Your task to perform on an android device: open app "Move to iOS" (install if not already installed) and enter user name: "Decca@icloud.com" and password: "reabbreviate" Image 0: 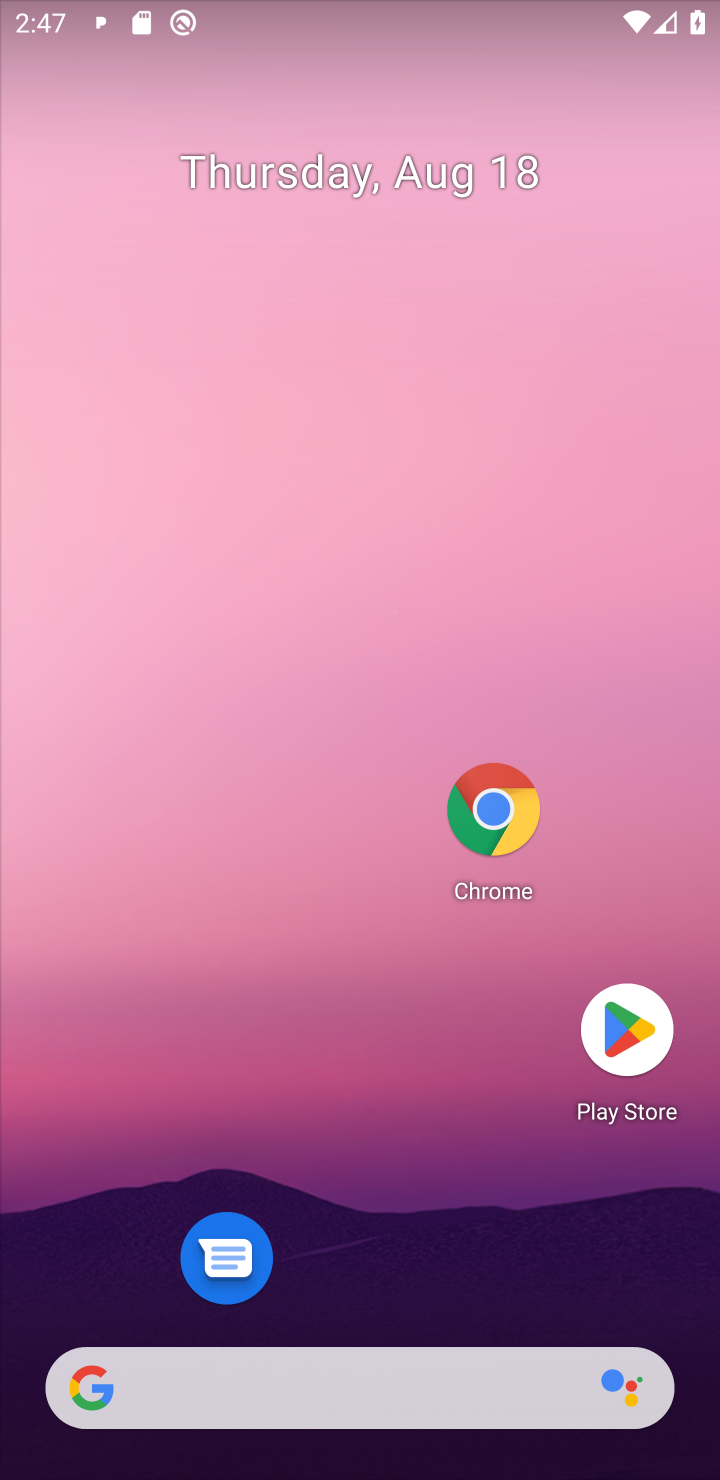
Step 0: drag from (155, 1244) to (185, 581)
Your task to perform on an android device: open app "Move to iOS" (install if not already installed) and enter user name: "Decca@icloud.com" and password: "reabbreviate" Image 1: 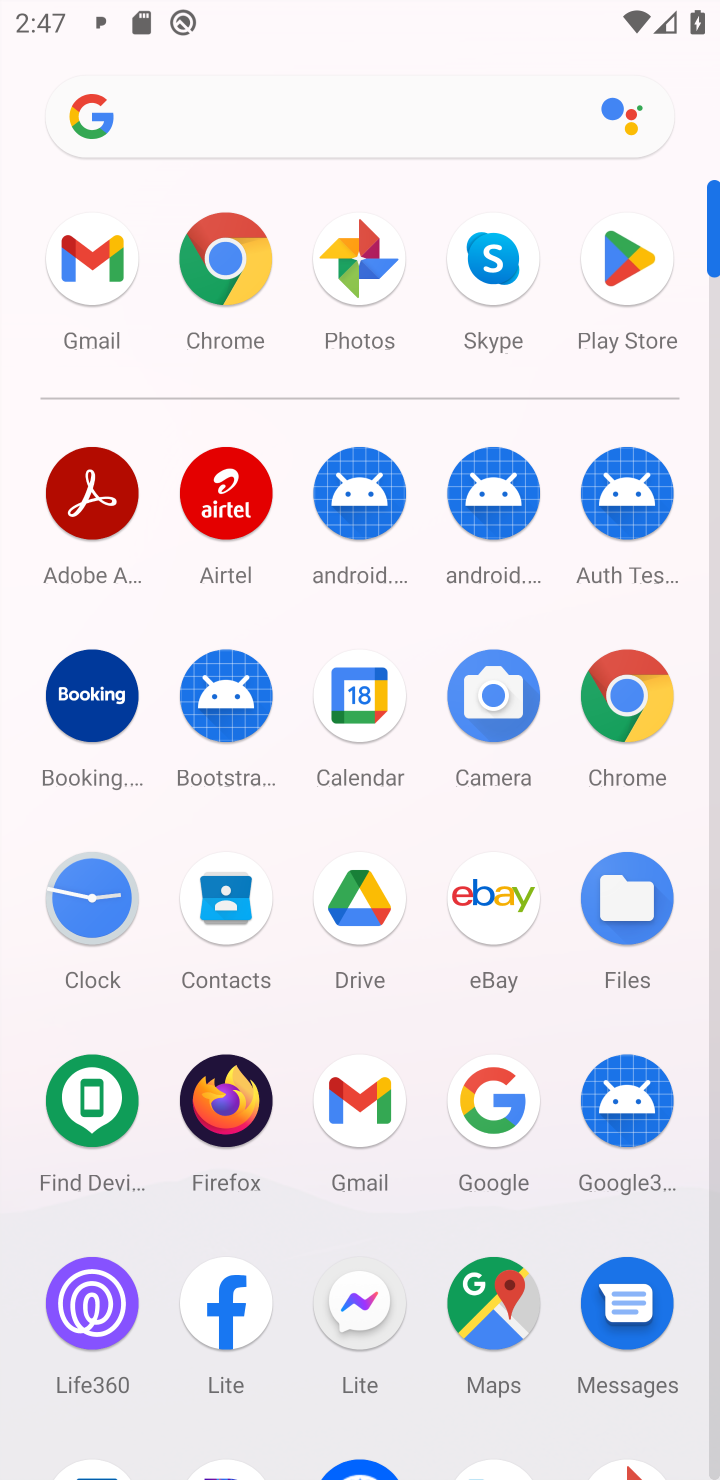
Step 1: click (616, 259)
Your task to perform on an android device: open app "Move to iOS" (install if not already installed) and enter user name: "Decca@icloud.com" and password: "reabbreviate" Image 2: 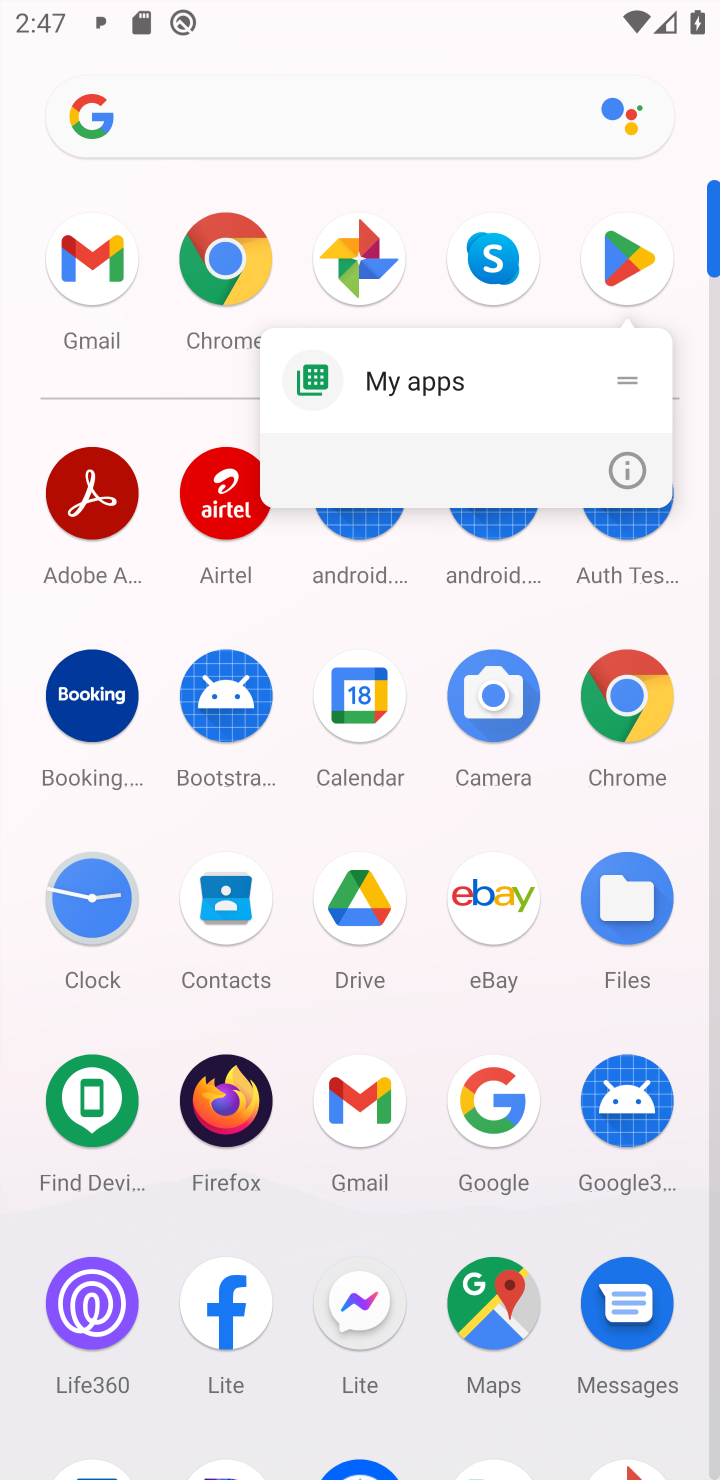
Step 2: click (616, 259)
Your task to perform on an android device: open app "Move to iOS" (install if not already installed) and enter user name: "Decca@icloud.com" and password: "reabbreviate" Image 3: 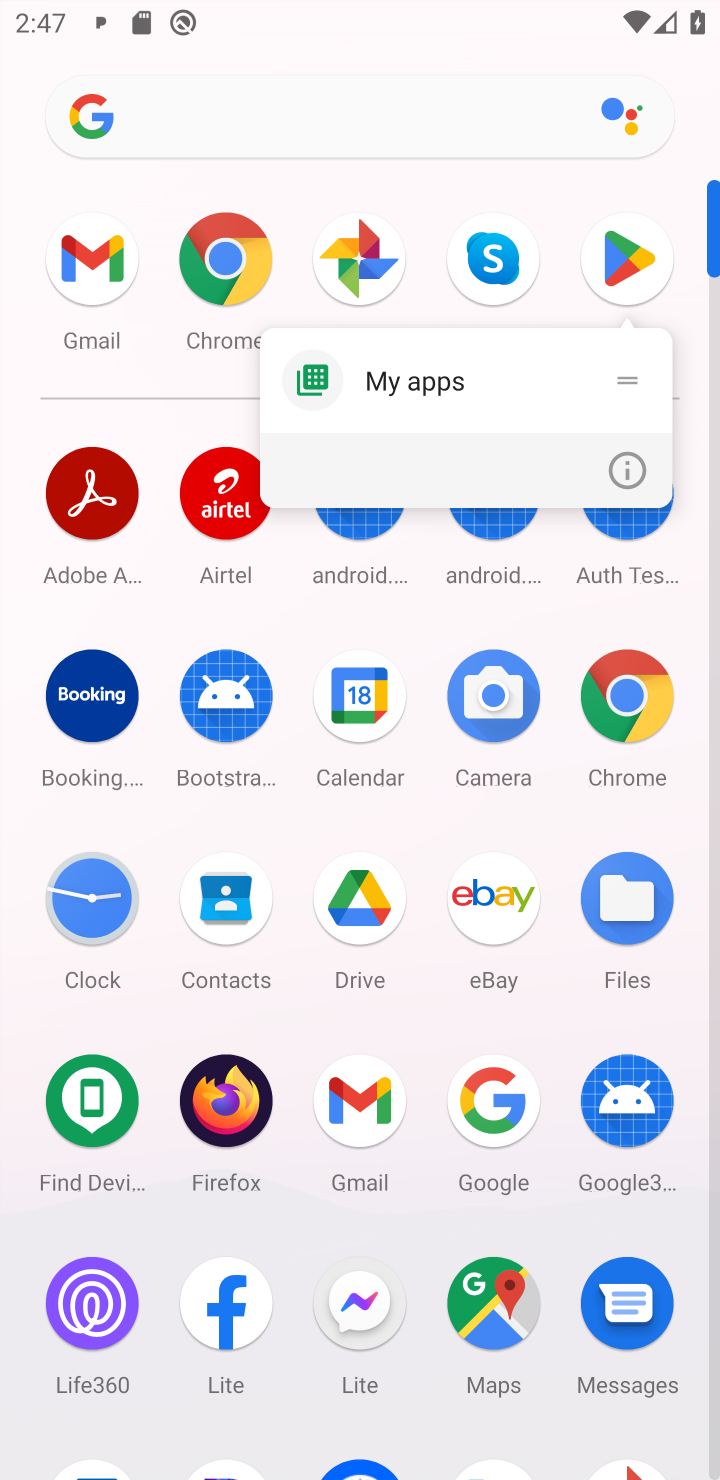
Step 3: click (616, 259)
Your task to perform on an android device: open app "Move to iOS" (install if not already installed) and enter user name: "Decca@icloud.com" and password: "reabbreviate" Image 4: 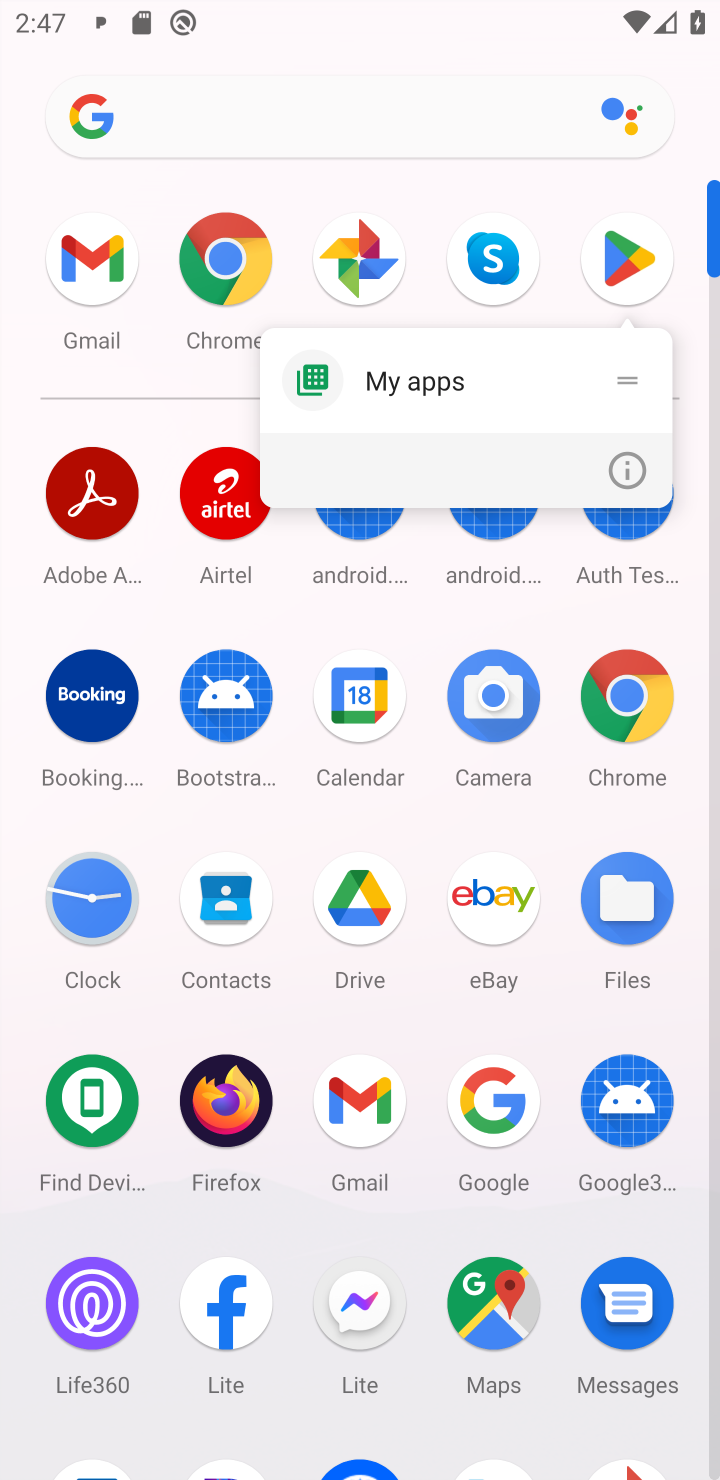
Step 4: click (616, 259)
Your task to perform on an android device: open app "Move to iOS" (install if not already installed) and enter user name: "Decca@icloud.com" and password: "reabbreviate" Image 5: 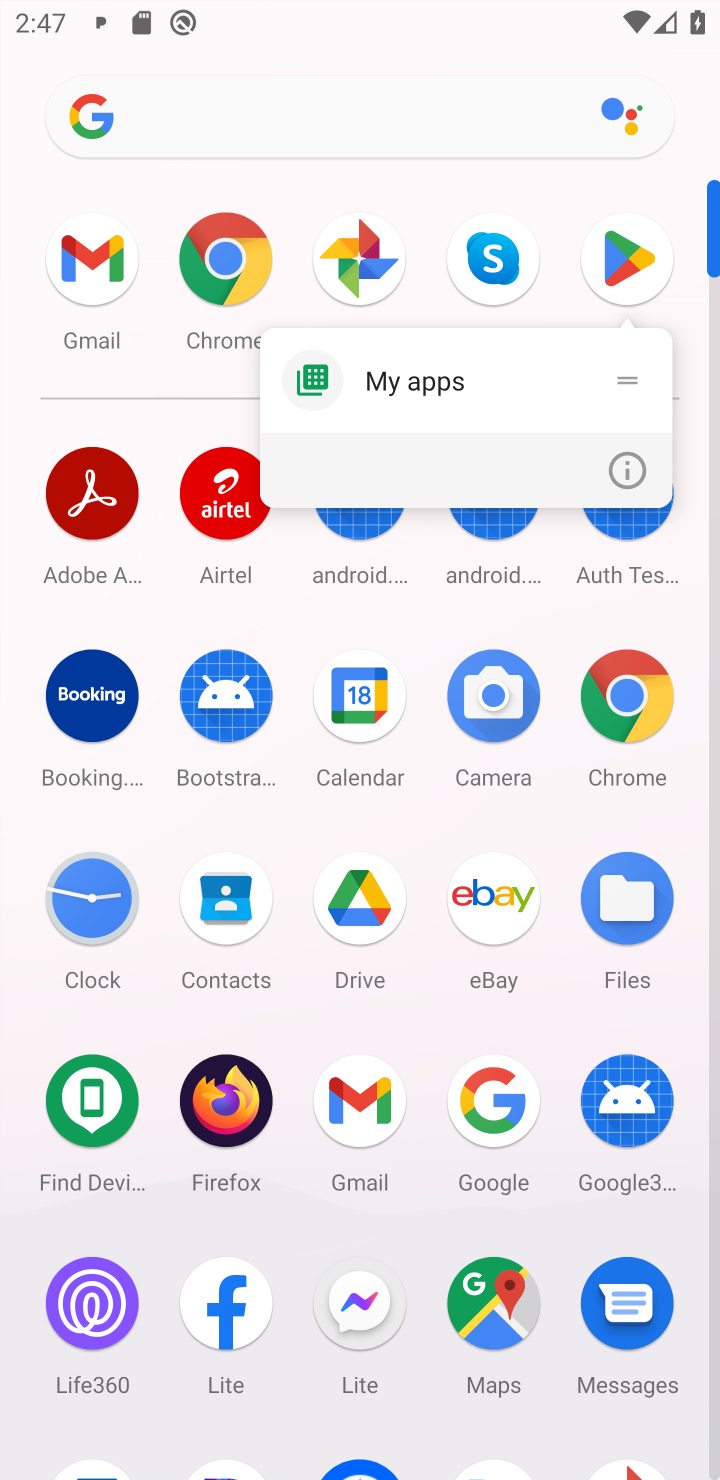
Step 5: click (616, 259)
Your task to perform on an android device: open app "Move to iOS" (install if not already installed) and enter user name: "Decca@icloud.com" and password: "reabbreviate" Image 6: 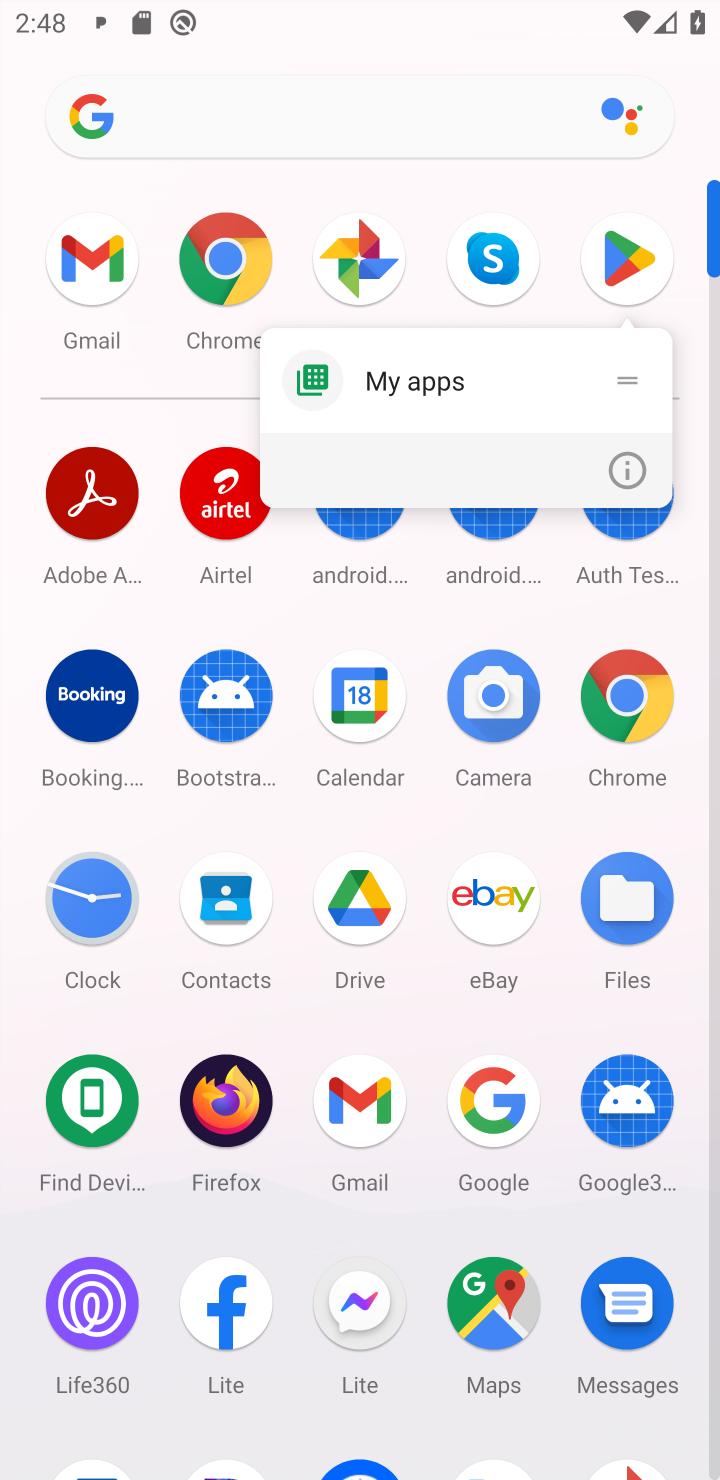
Step 6: click (620, 281)
Your task to perform on an android device: open app "Move to iOS" (install if not already installed) and enter user name: "Decca@icloud.com" and password: "reabbreviate" Image 7: 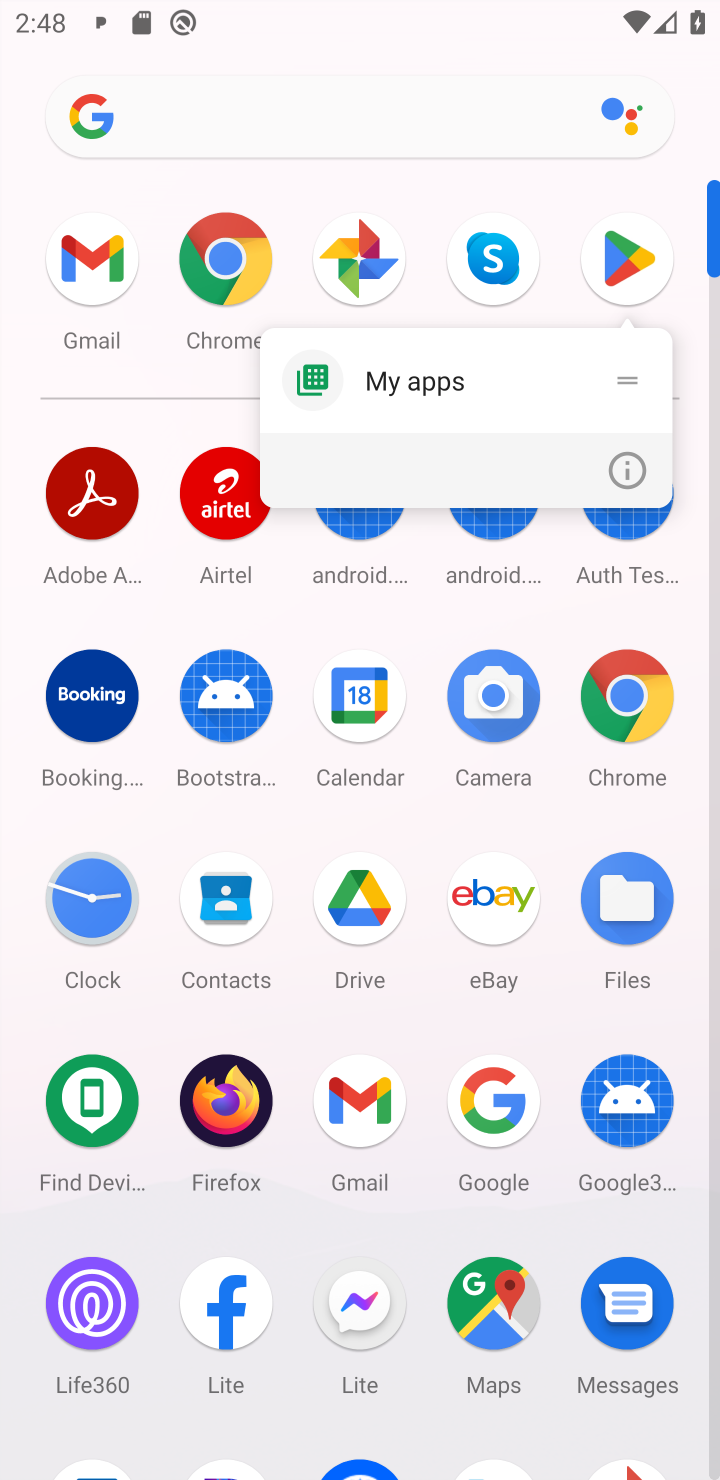
Step 7: press home button
Your task to perform on an android device: open app "Move to iOS" (install if not already installed) and enter user name: "Decca@icloud.com" and password: "reabbreviate" Image 8: 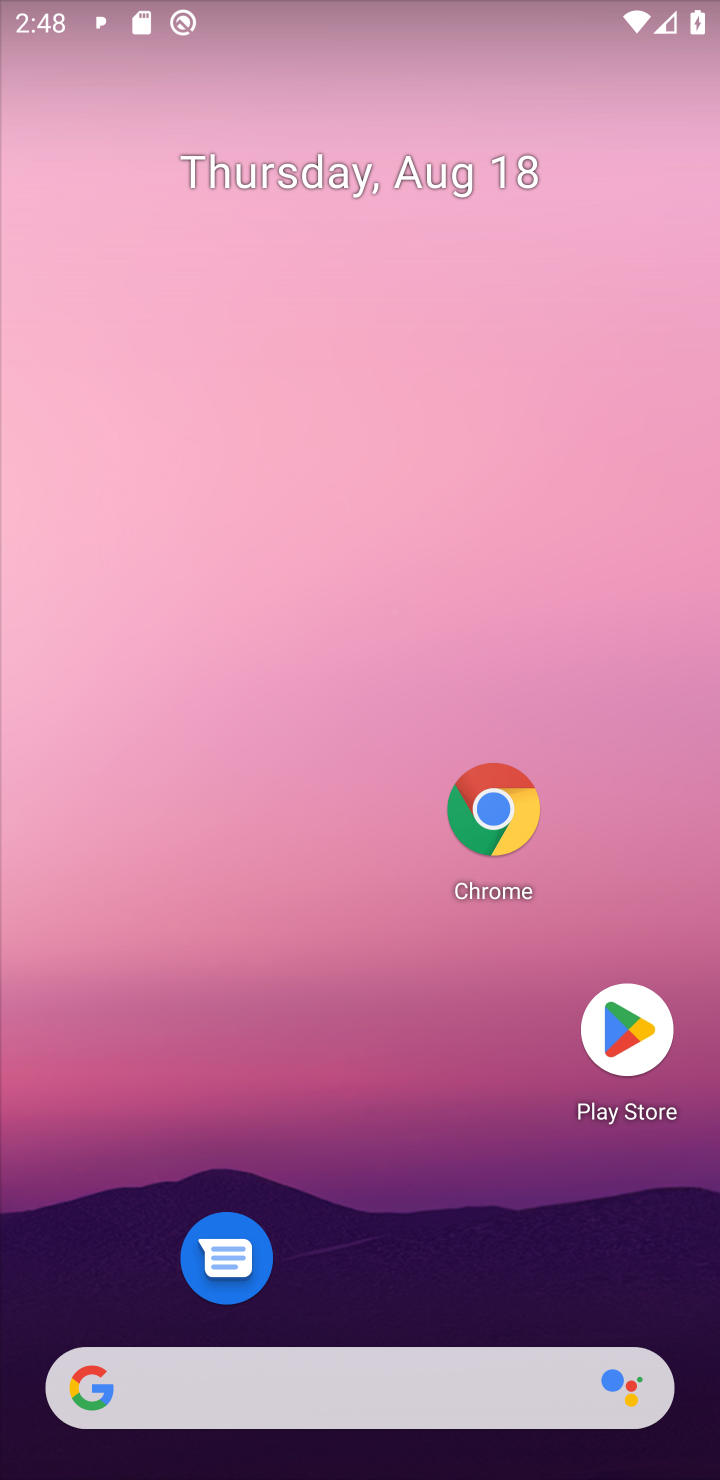
Step 8: click (628, 1005)
Your task to perform on an android device: open app "Move to iOS" (install if not already installed) and enter user name: "Decca@icloud.com" and password: "reabbreviate" Image 9: 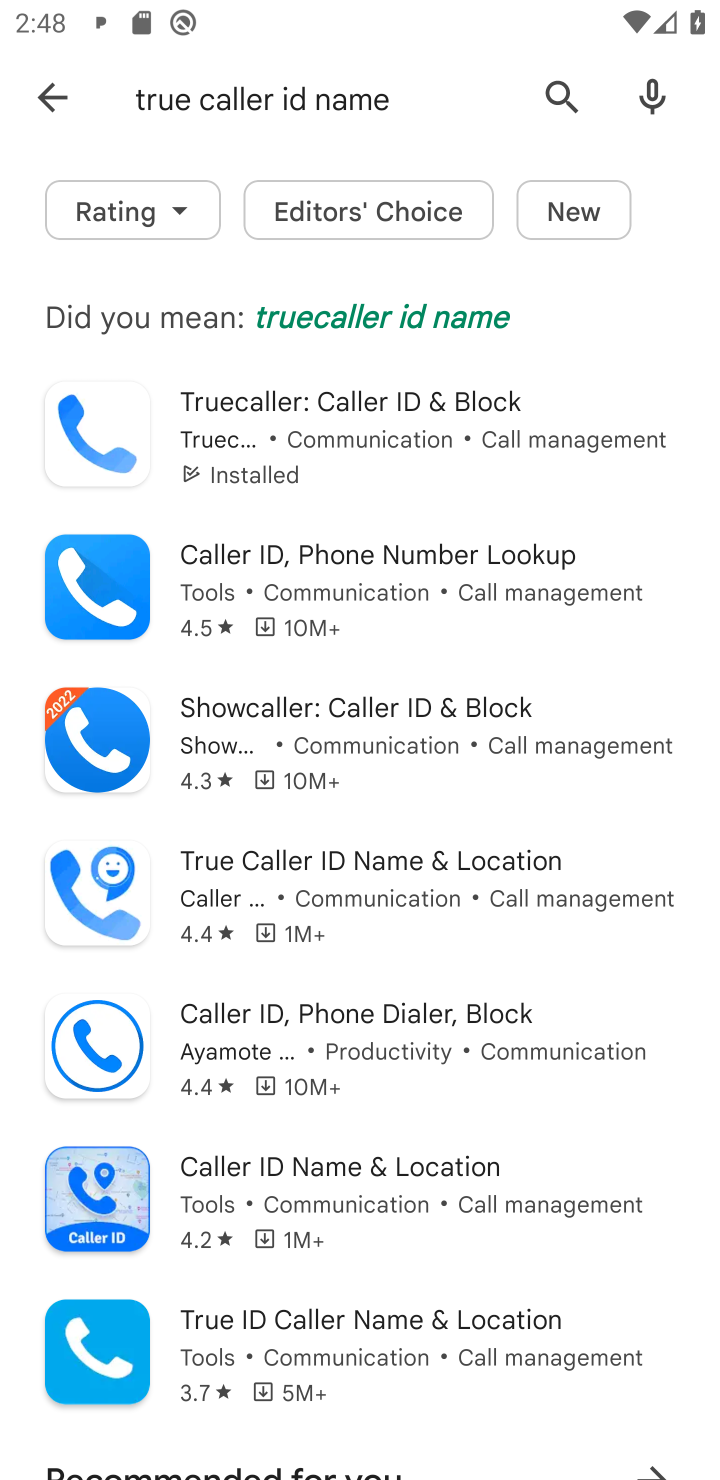
Step 9: click (65, 102)
Your task to perform on an android device: open app "Move to iOS" (install if not already installed) and enter user name: "Decca@icloud.com" and password: "reabbreviate" Image 10: 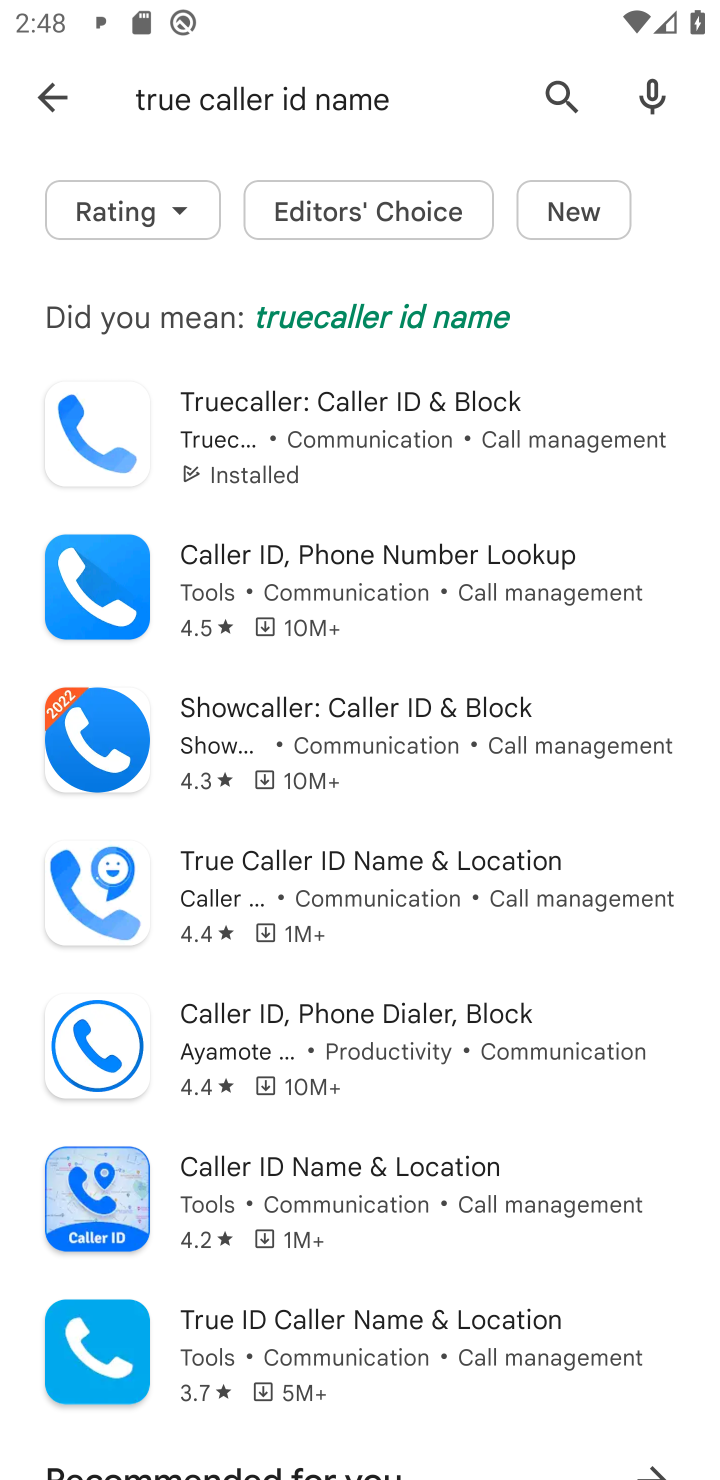
Step 10: click (65, 102)
Your task to perform on an android device: open app "Move to iOS" (install if not already installed) and enter user name: "Decca@icloud.com" and password: "reabbreviate" Image 11: 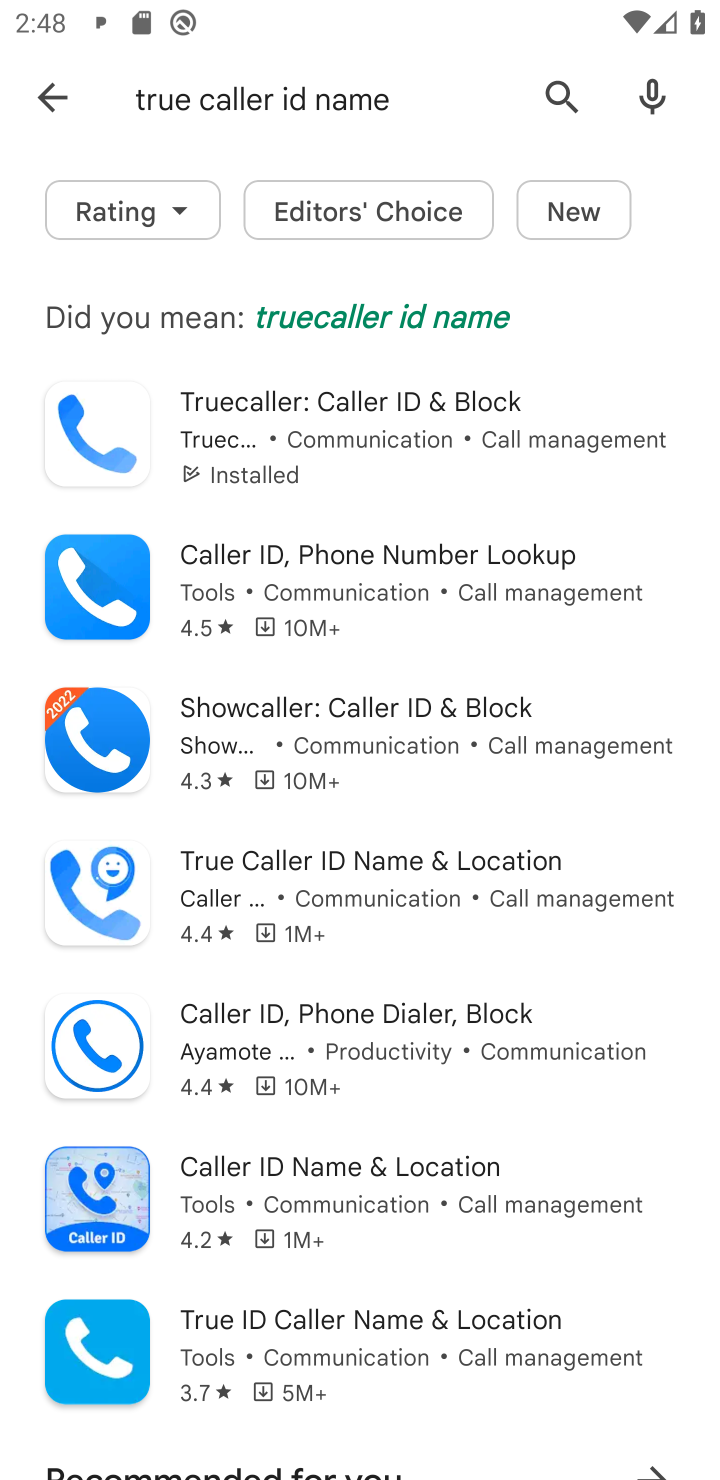
Step 11: click (549, 97)
Your task to perform on an android device: open app "Move to iOS" (install if not already installed) and enter user name: "Decca@icloud.com" and password: "reabbreviate" Image 12: 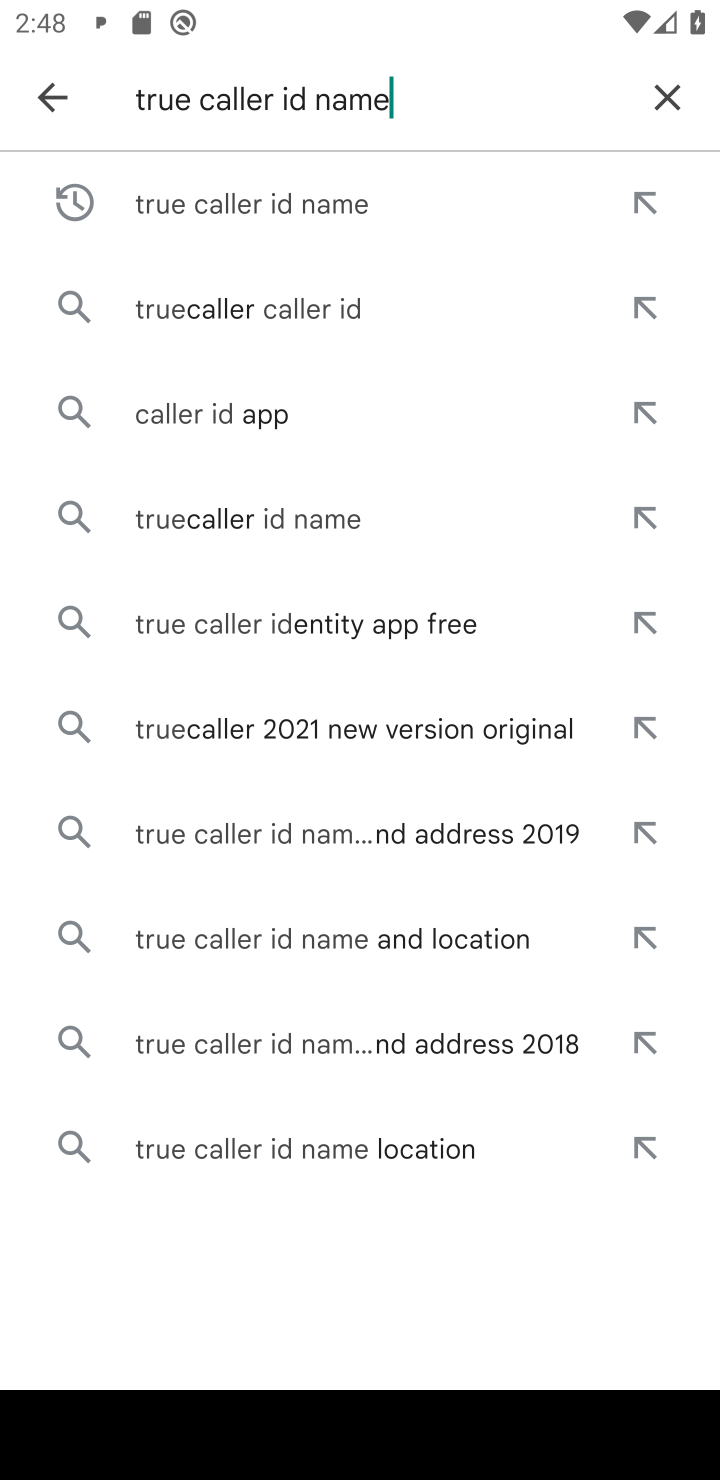
Step 12: click (673, 84)
Your task to perform on an android device: open app "Move to iOS" (install if not already installed) and enter user name: "Decca@icloud.com" and password: "reabbreviate" Image 13: 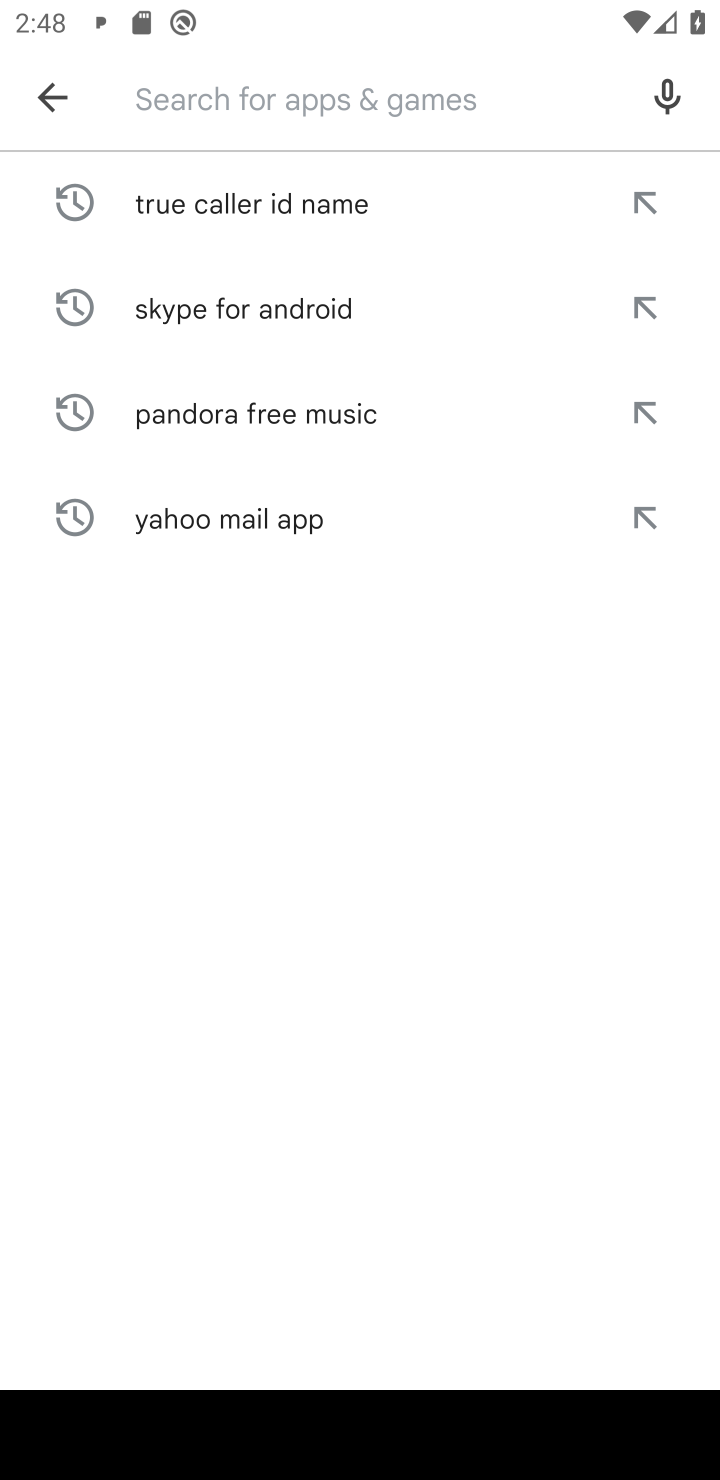
Step 13: click (418, 97)
Your task to perform on an android device: open app "Move to iOS" (install if not already installed) and enter user name: "Decca@icloud.com" and password: "reabbreviate" Image 14: 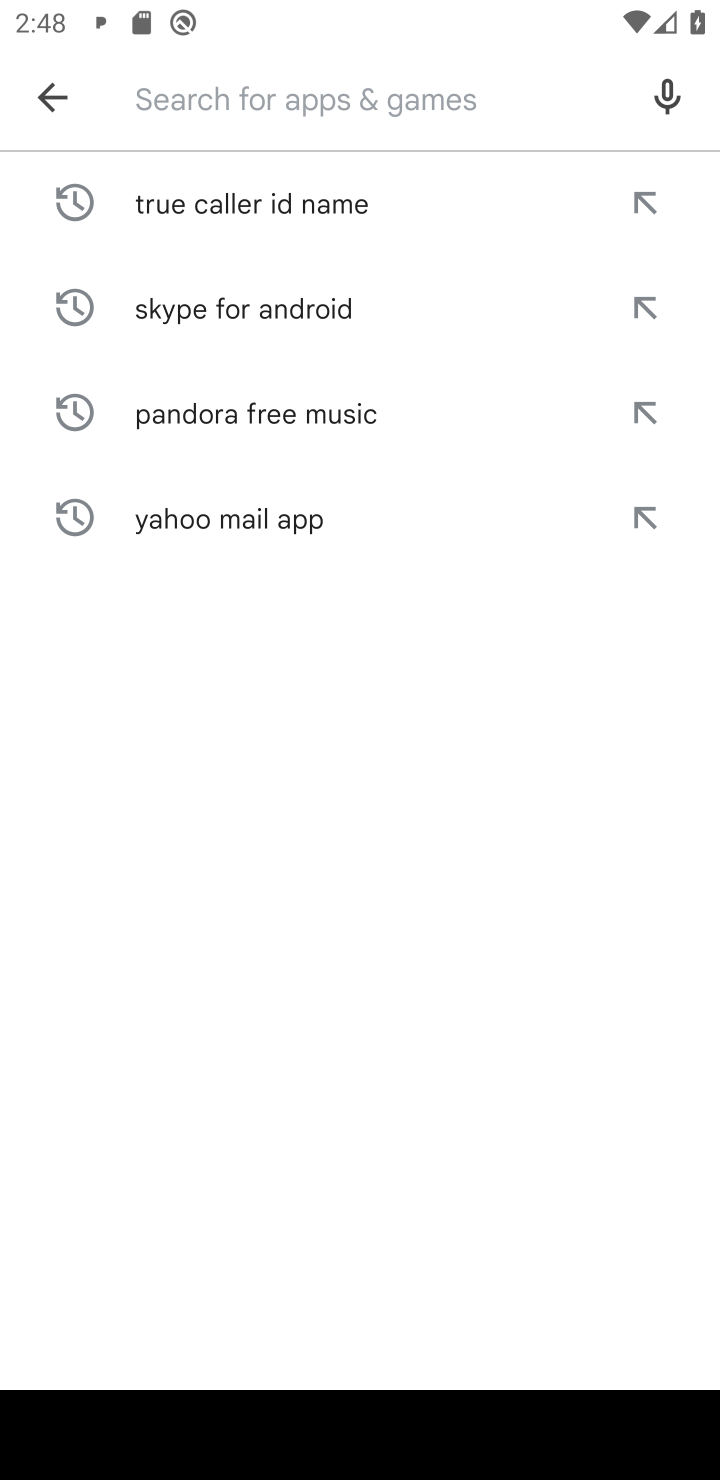
Step 14: type "move to ios "
Your task to perform on an android device: open app "Move to iOS" (install if not already installed) and enter user name: "Decca@icloud.com" and password: "reabbreviate" Image 15: 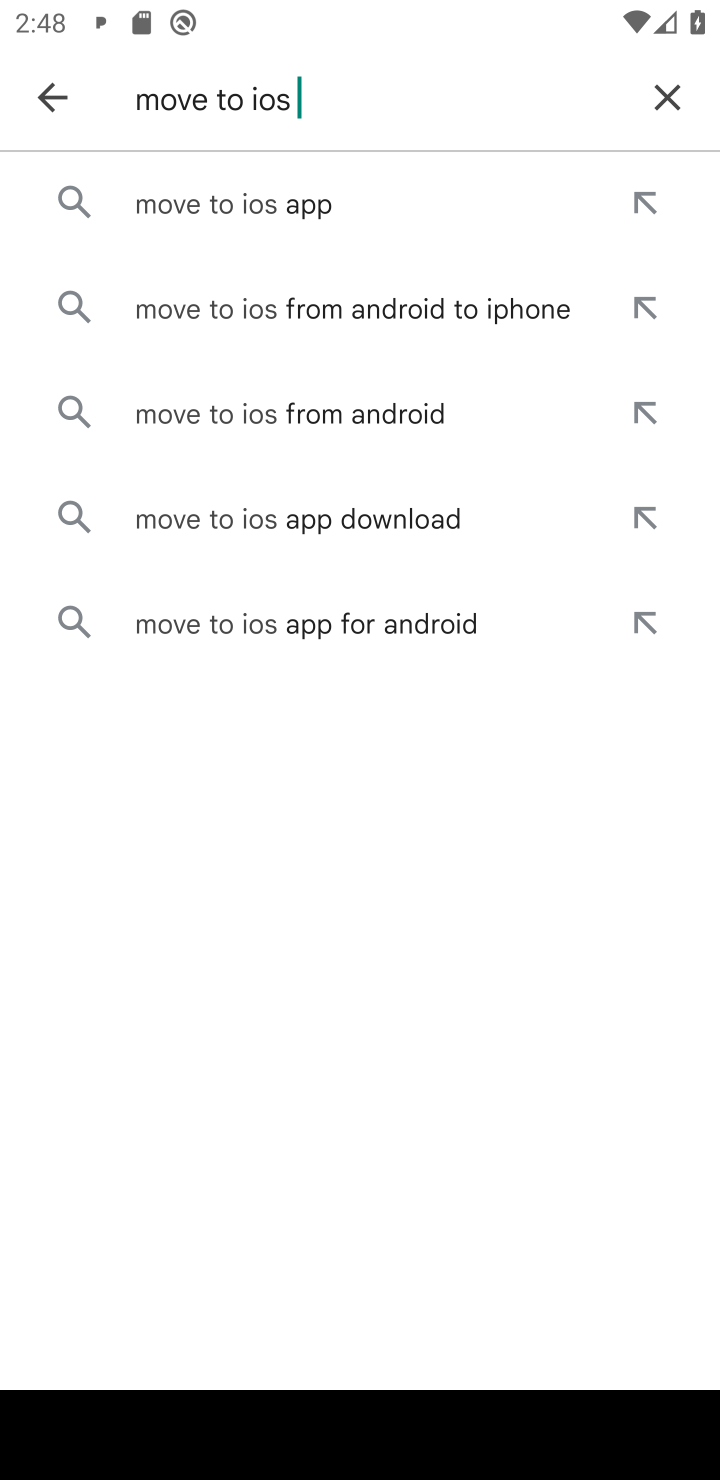
Step 15: click (274, 200)
Your task to perform on an android device: open app "Move to iOS" (install if not already installed) and enter user name: "Decca@icloud.com" and password: "reabbreviate" Image 16: 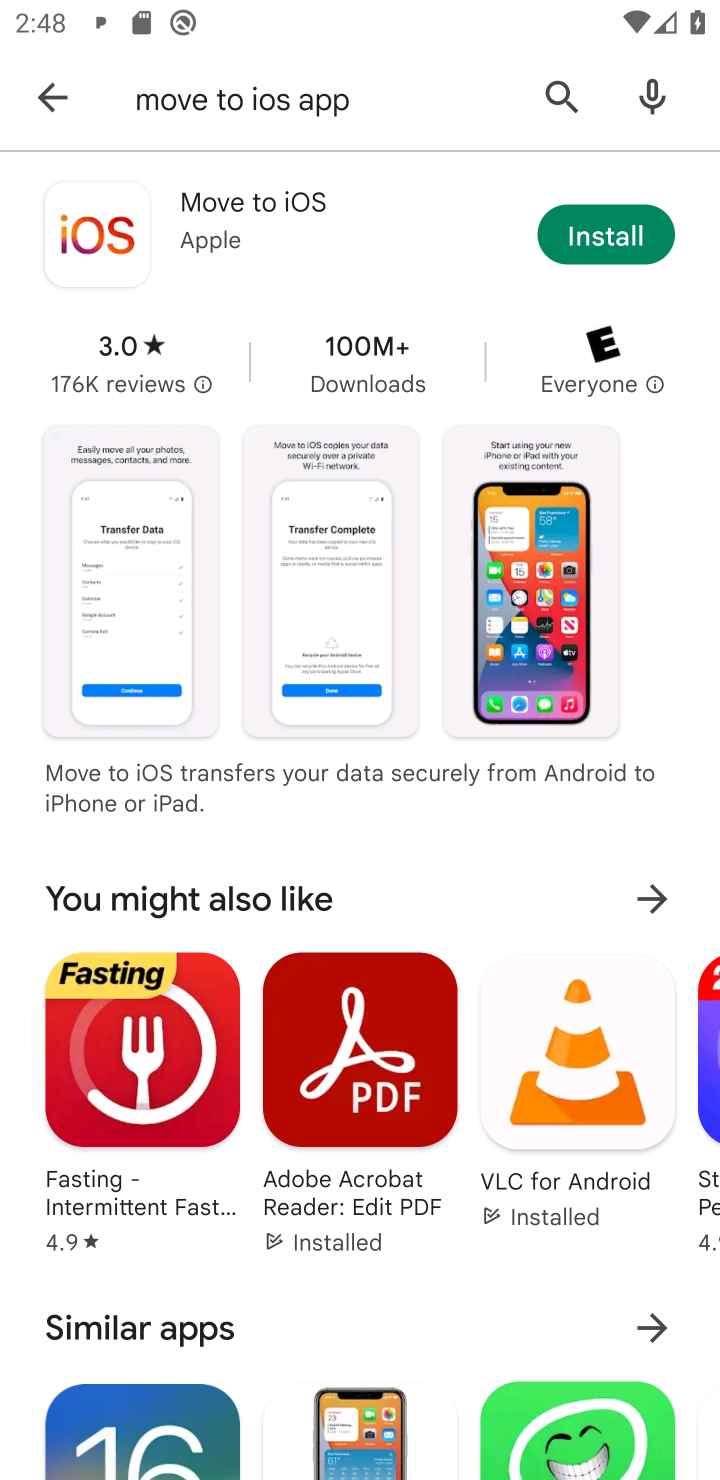
Step 16: click (627, 230)
Your task to perform on an android device: open app "Move to iOS" (install if not already installed) and enter user name: "Decca@icloud.com" and password: "reabbreviate" Image 17: 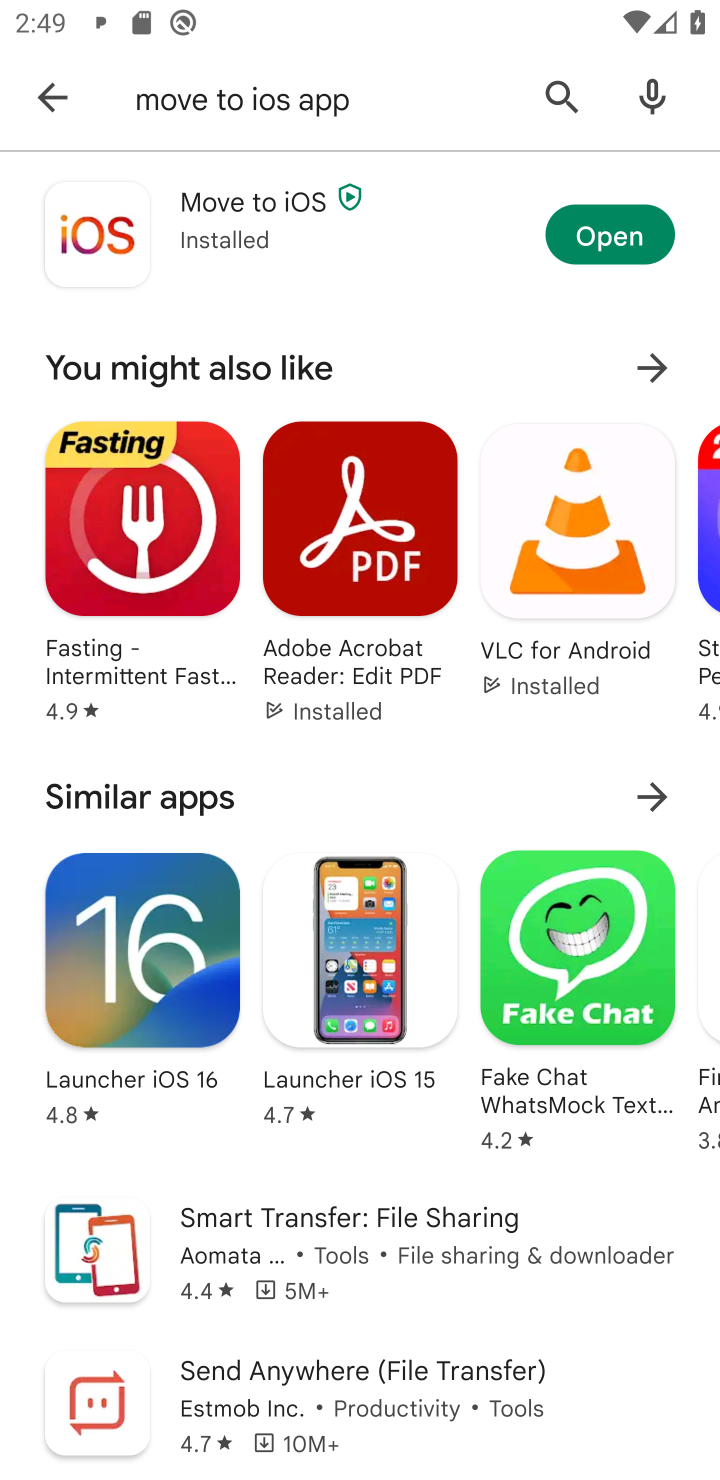
Step 17: click (627, 230)
Your task to perform on an android device: open app "Move to iOS" (install if not already installed) and enter user name: "Decca@icloud.com" and password: "reabbreviate" Image 18: 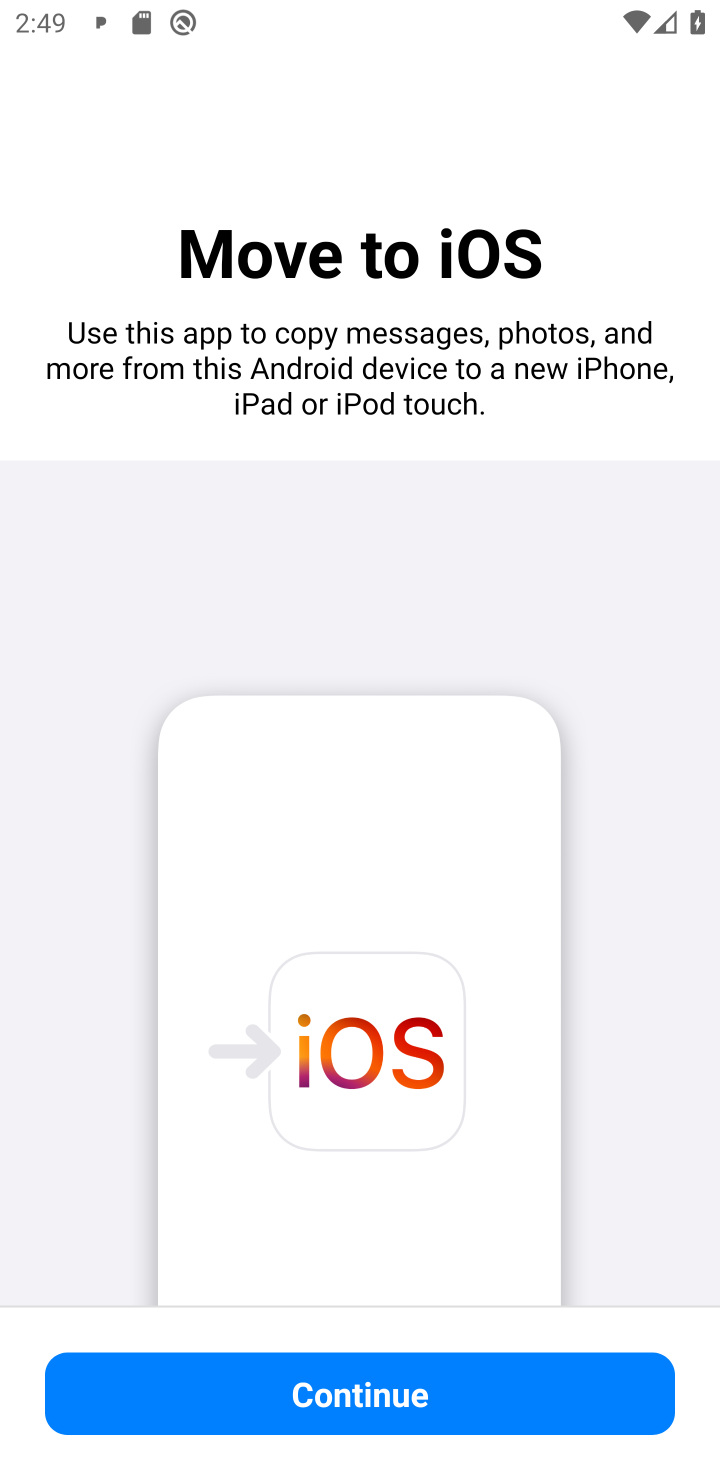
Step 18: task complete